Your task to perform on an android device: change keyboard looks Image 0: 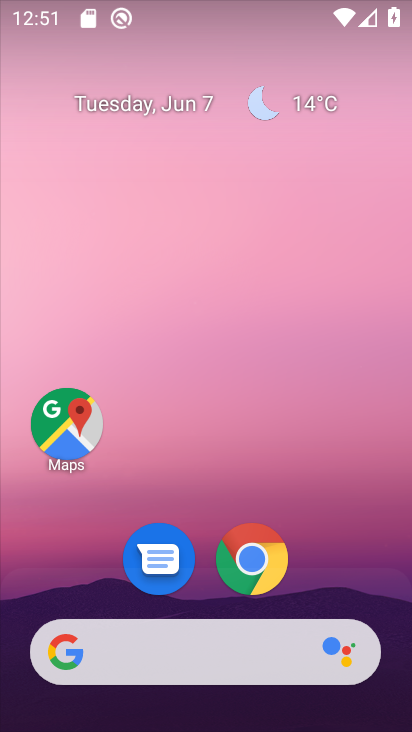
Step 0: drag from (390, 645) to (356, 125)
Your task to perform on an android device: change keyboard looks Image 1: 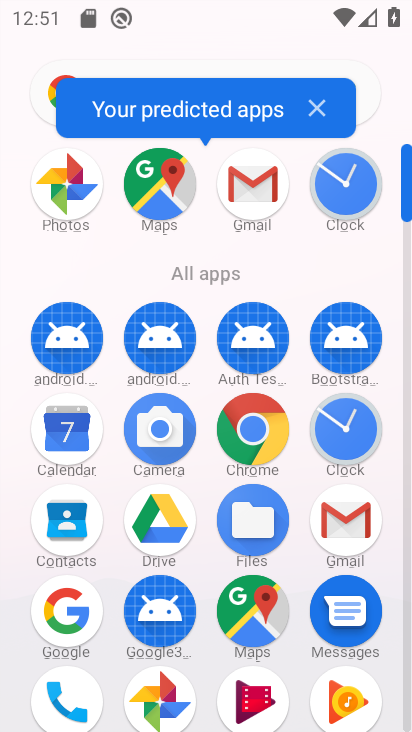
Step 1: click (407, 698)
Your task to perform on an android device: change keyboard looks Image 2: 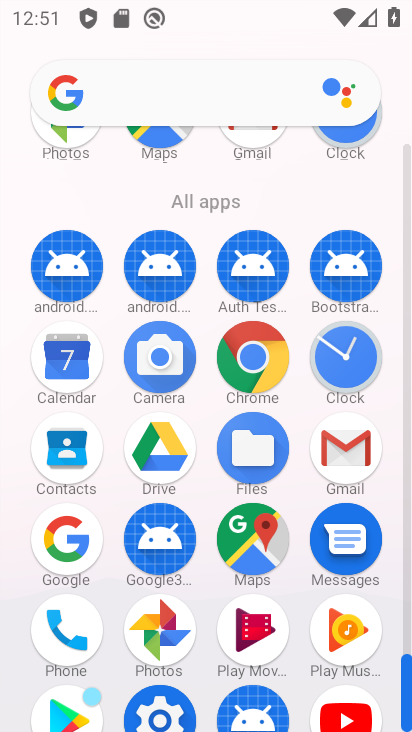
Step 2: click (406, 631)
Your task to perform on an android device: change keyboard looks Image 3: 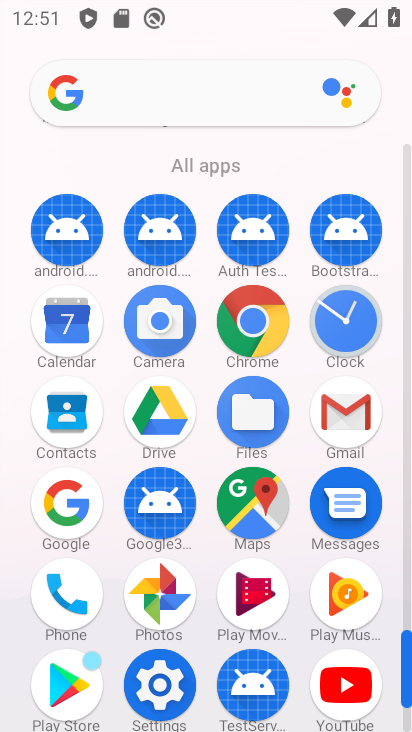
Step 3: click (158, 683)
Your task to perform on an android device: change keyboard looks Image 4: 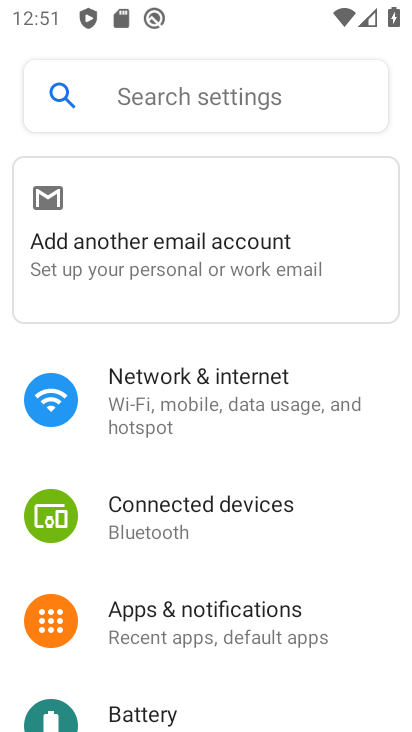
Step 4: drag from (370, 673) to (335, 186)
Your task to perform on an android device: change keyboard looks Image 5: 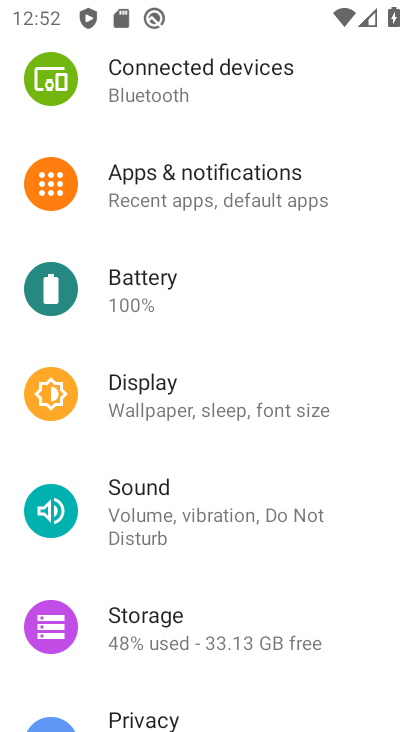
Step 5: drag from (352, 644) to (323, 103)
Your task to perform on an android device: change keyboard looks Image 6: 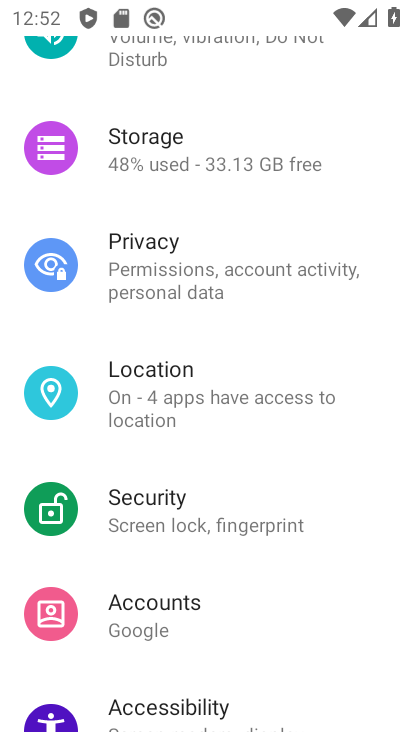
Step 6: drag from (334, 604) to (303, 57)
Your task to perform on an android device: change keyboard looks Image 7: 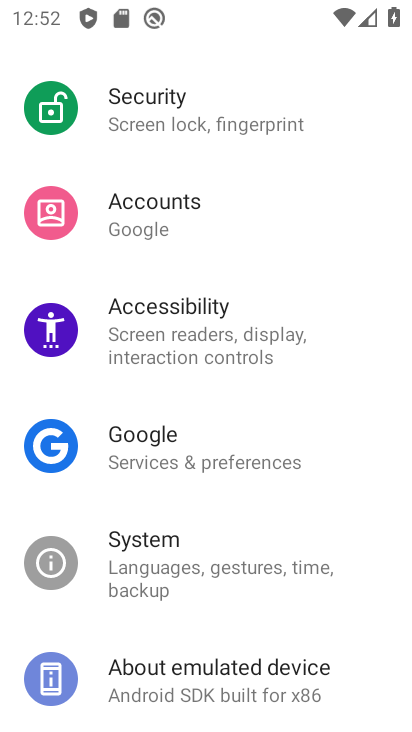
Step 7: click (146, 578)
Your task to perform on an android device: change keyboard looks Image 8: 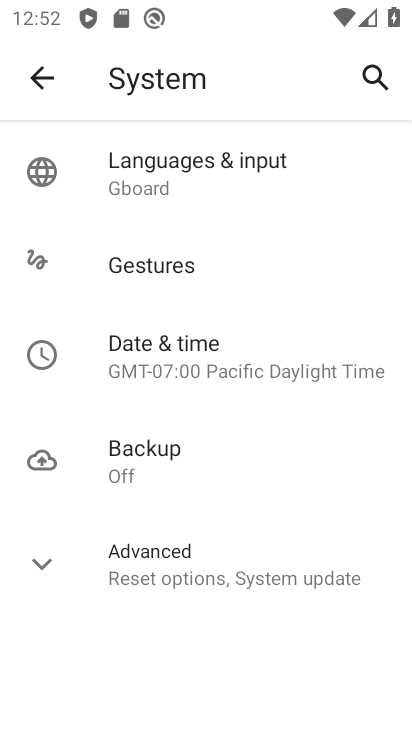
Step 8: click (157, 166)
Your task to perform on an android device: change keyboard looks Image 9: 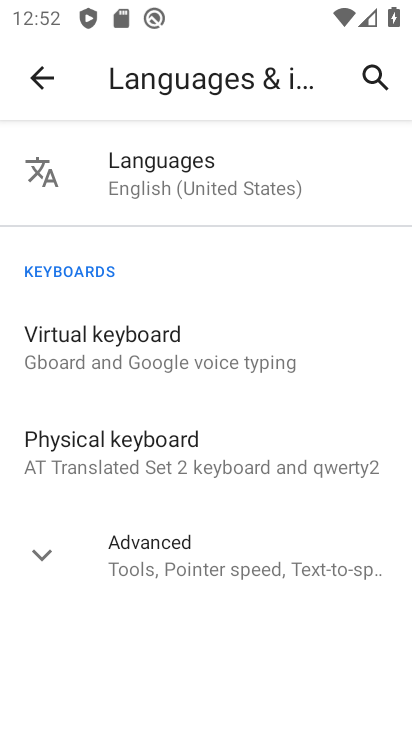
Step 9: click (70, 471)
Your task to perform on an android device: change keyboard looks Image 10: 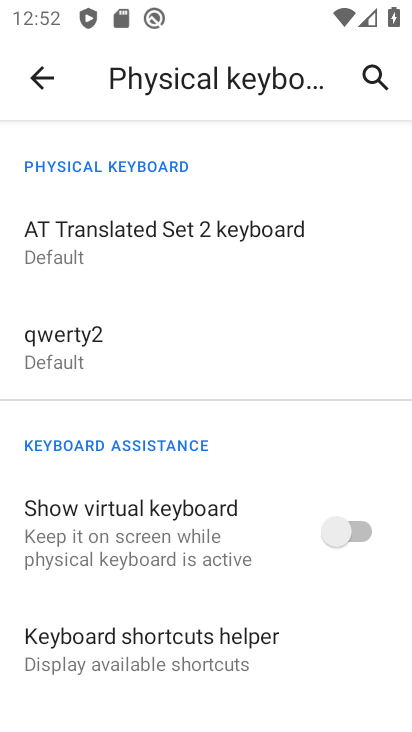
Step 10: click (67, 347)
Your task to perform on an android device: change keyboard looks Image 11: 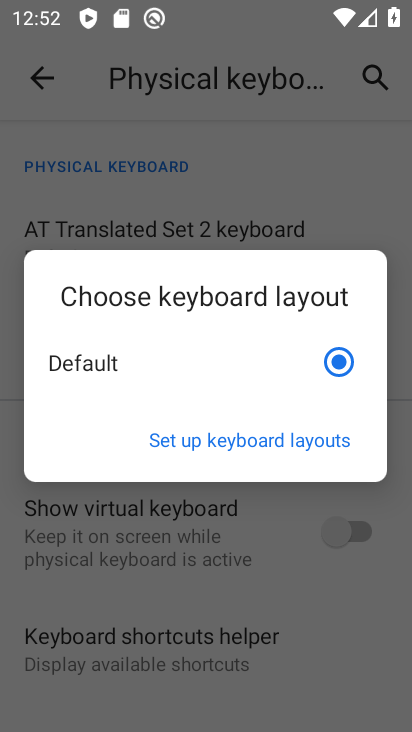
Step 11: click (247, 437)
Your task to perform on an android device: change keyboard looks Image 12: 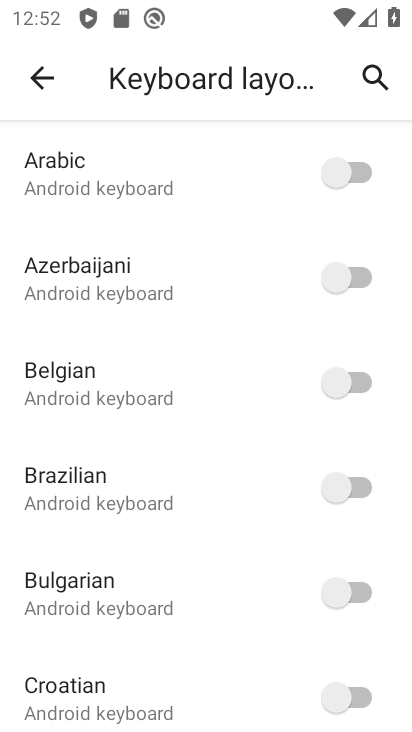
Step 12: drag from (273, 664) to (267, 170)
Your task to perform on an android device: change keyboard looks Image 13: 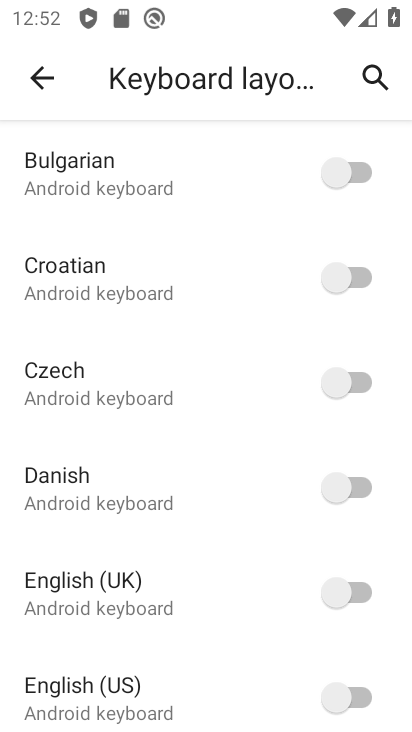
Step 13: click (358, 587)
Your task to perform on an android device: change keyboard looks Image 14: 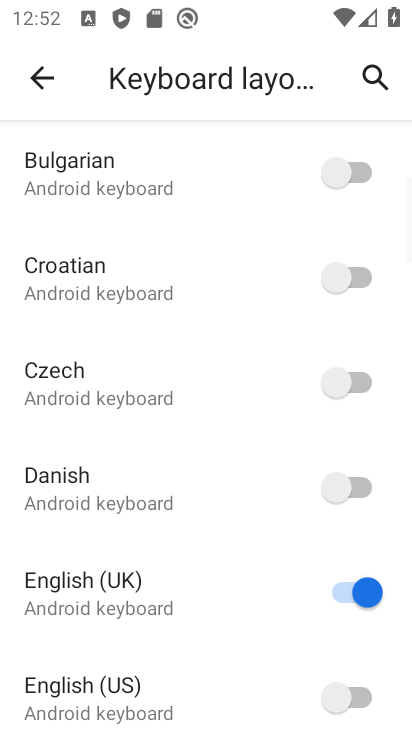
Step 14: task complete